Your task to perform on an android device: toggle data saver in the chrome app Image 0: 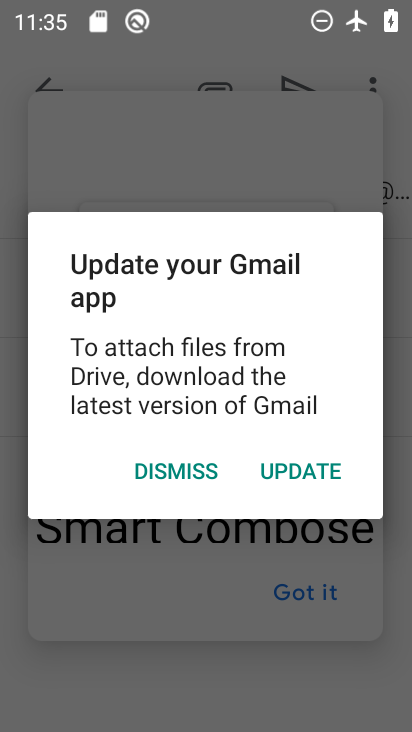
Step 0: press home button
Your task to perform on an android device: toggle data saver in the chrome app Image 1: 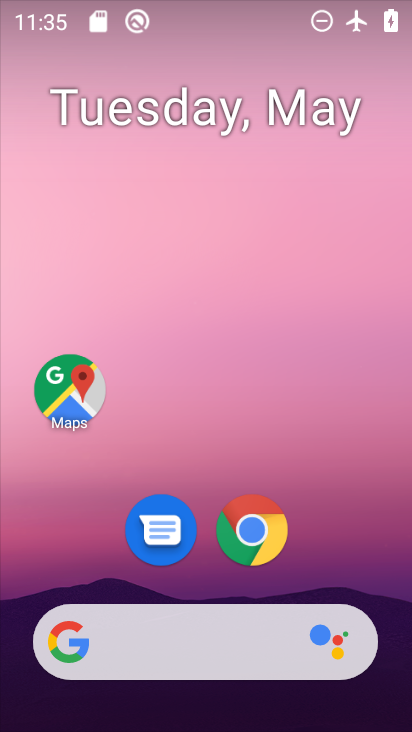
Step 1: click (245, 530)
Your task to perform on an android device: toggle data saver in the chrome app Image 2: 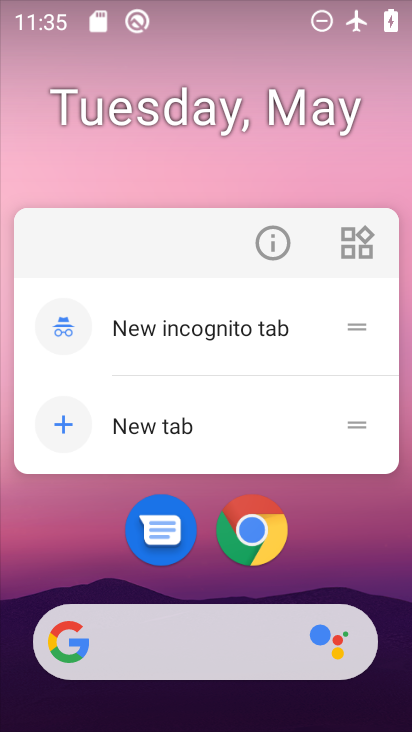
Step 2: click (259, 524)
Your task to perform on an android device: toggle data saver in the chrome app Image 3: 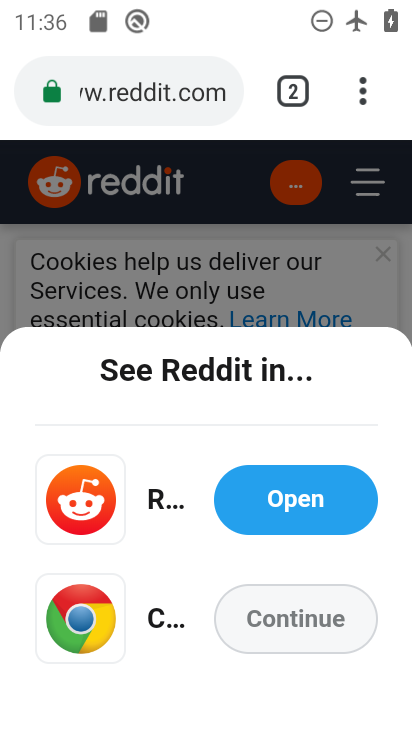
Step 3: drag from (362, 83) to (169, 558)
Your task to perform on an android device: toggle data saver in the chrome app Image 4: 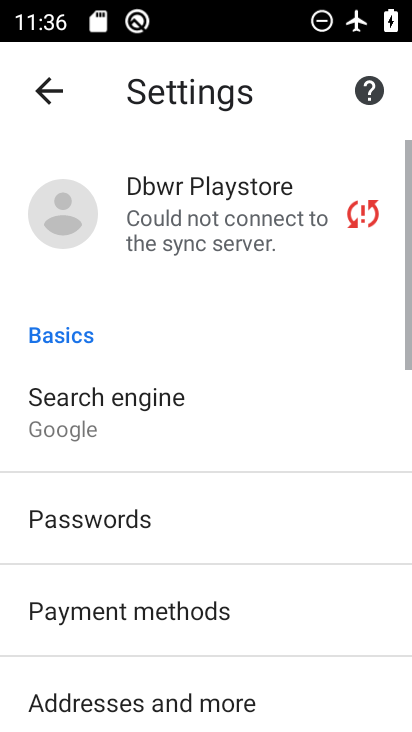
Step 4: drag from (212, 569) to (284, 123)
Your task to perform on an android device: toggle data saver in the chrome app Image 5: 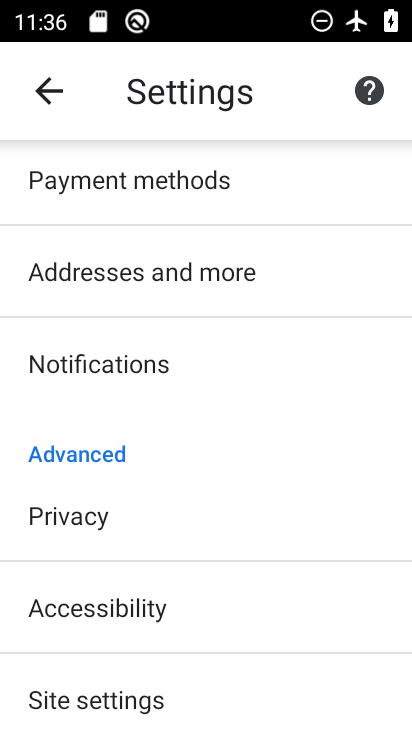
Step 5: drag from (200, 584) to (262, 291)
Your task to perform on an android device: toggle data saver in the chrome app Image 6: 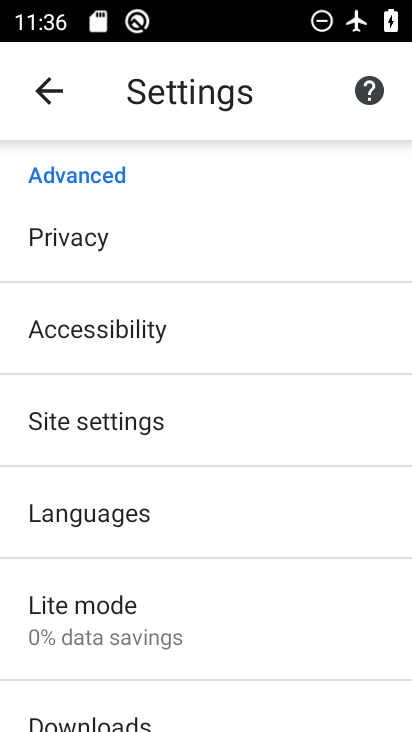
Step 6: click (100, 603)
Your task to perform on an android device: toggle data saver in the chrome app Image 7: 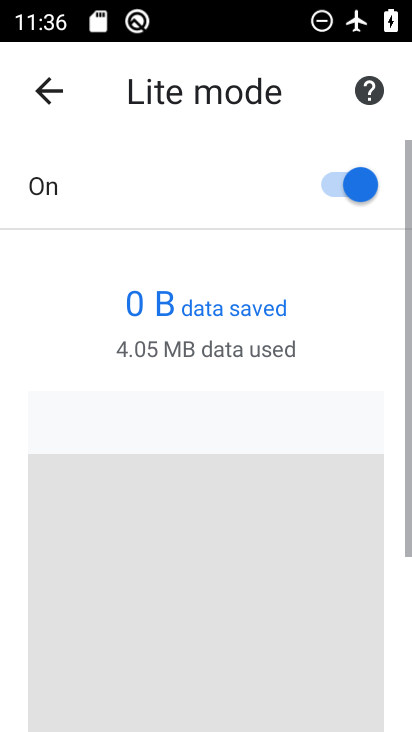
Step 7: click (351, 171)
Your task to perform on an android device: toggle data saver in the chrome app Image 8: 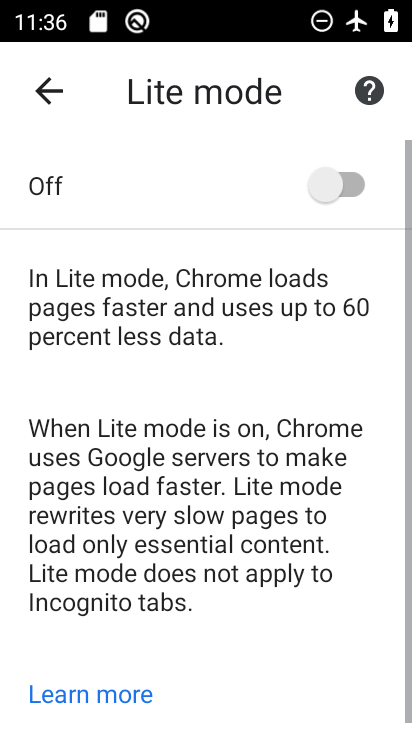
Step 8: task complete